Your task to perform on an android device: toggle data saver in the chrome app Image 0: 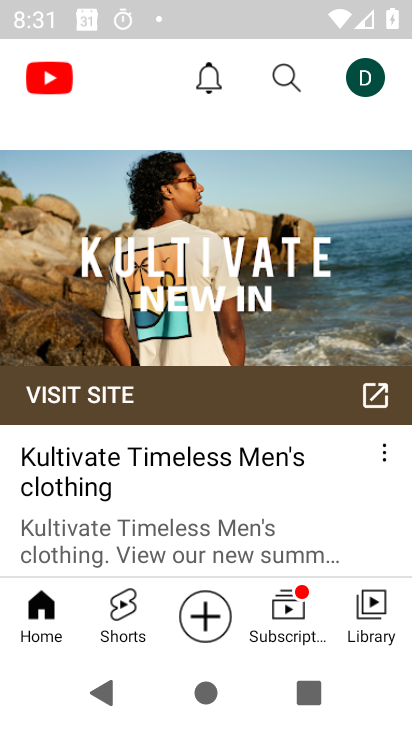
Step 0: press home button
Your task to perform on an android device: toggle data saver in the chrome app Image 1: 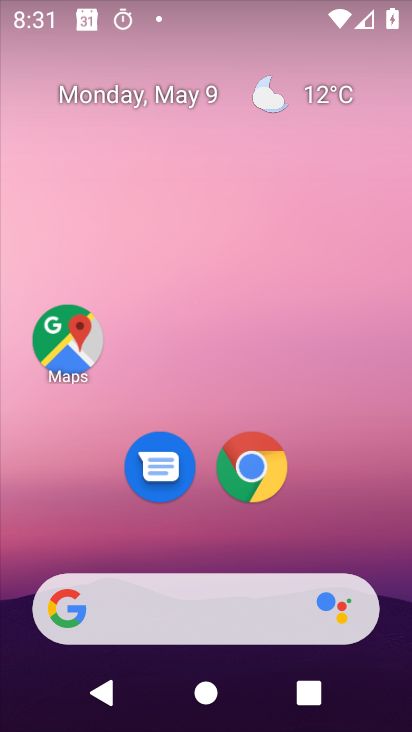
Step 1: click (256, 466)
Your task to perform on an android device: toggle data saver in the chrome app Image 2: 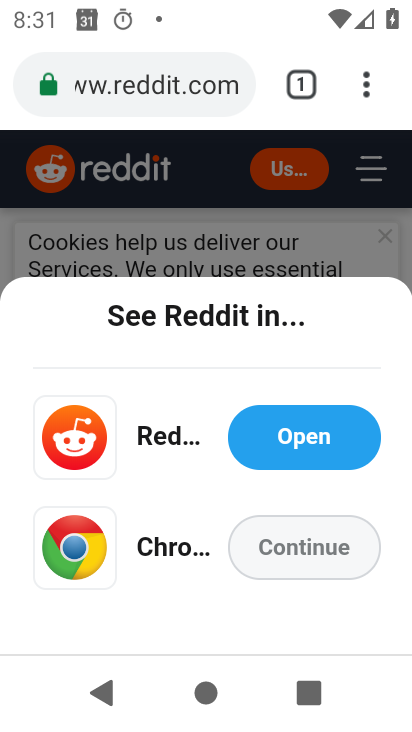
Step 2: drag from (371, 87) to (117, 524)
Your task to perform on an android device: toggle data saver in the chrome app Image 3: 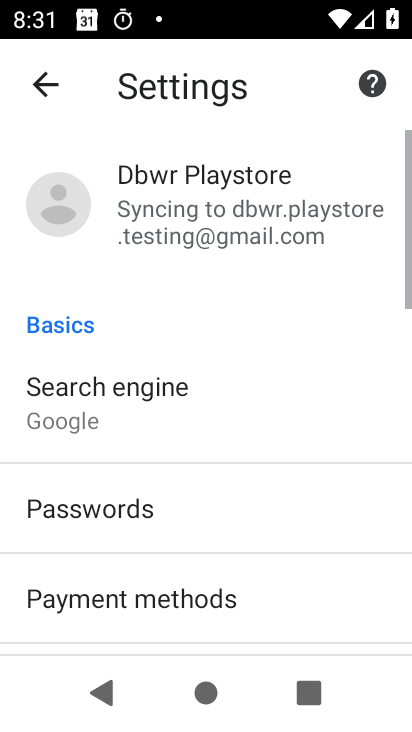
Step 3: drag from (208, 538) to (232, 166)
Your task to perform on an android device: toggle data saver in the chrome app Image 4: 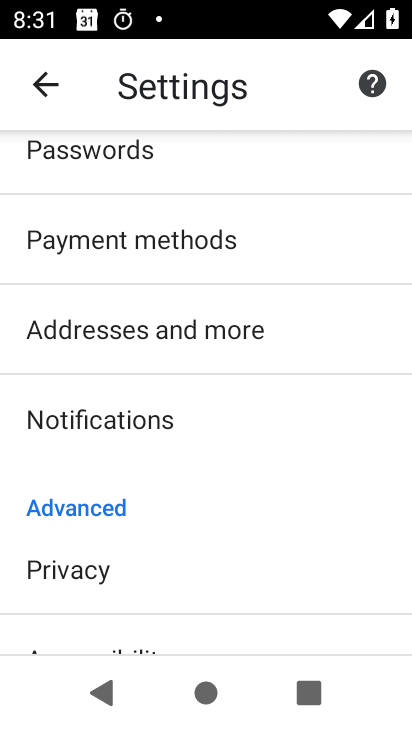
Step 4: drag from (208, 477) to (219, 148)
Your task to perform on an android device: toggle data saver in the chrome app Image 5: 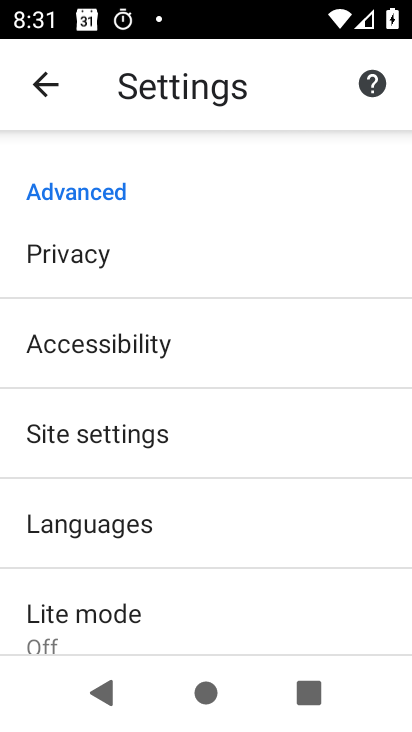
Step 5: click (116, 618)
Your task to perform on an android device: toggle data saver in the chrome app Image 6: 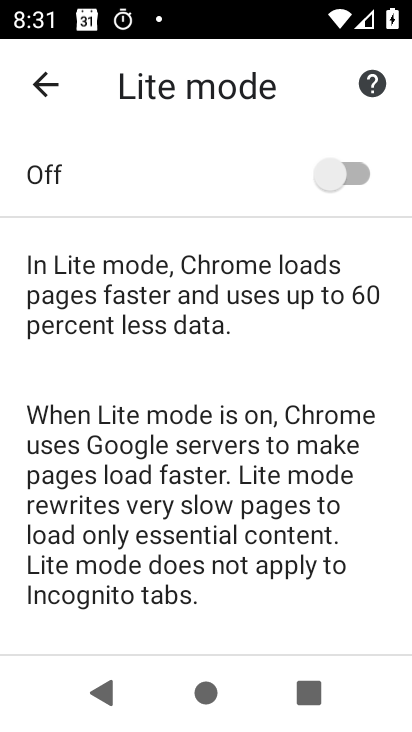
Step 6: click (341, 179)
Your task to perform on an android device: toggle data saver in the chrome app Image 7: 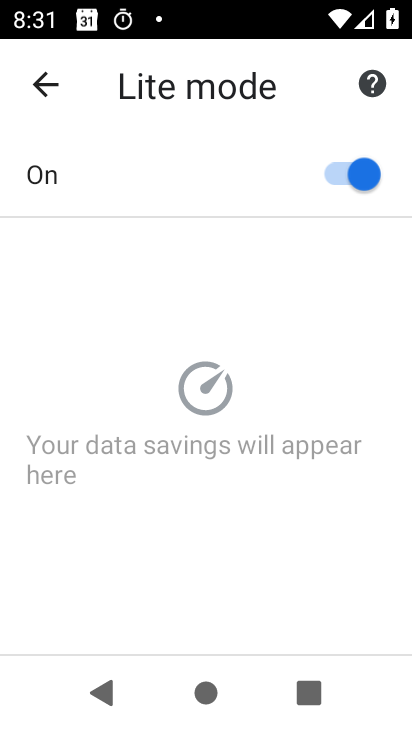
Step 7: task complete